Your task to perform on an android device: change the upload size in google photos Image 0: 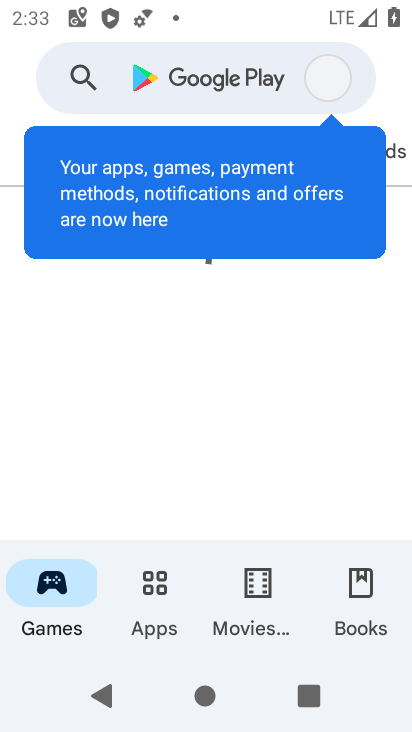
Step 0: press home button
Your task to perform on an android device: change the upload size in google photos Image 1: 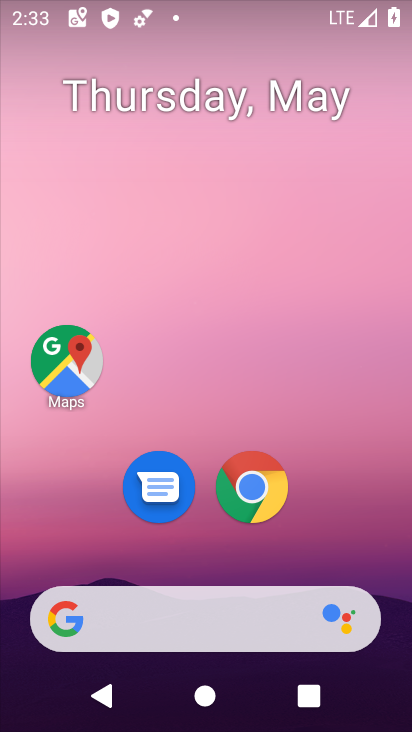
Step 1: drag from (269, 637) to (258, 134)
Your task to perform on an android device: change the upload size in google photos Image 2: 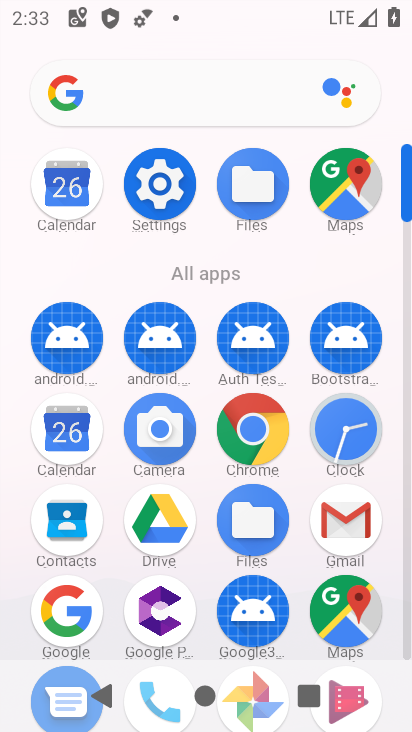
Step 2: drag from (258, 504) to (314, 132)
Your task to perform on an android device: change the upload size in google photos Image 3: 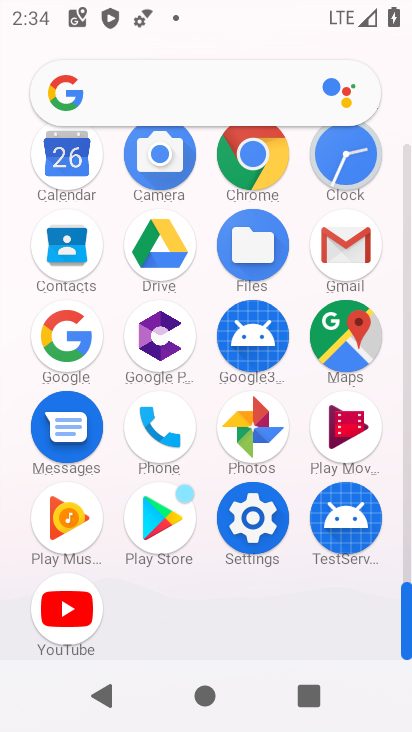
Step 3: drag from (258, 488) to (338, 84)
Your task to perform on an android device: change the upload size in google photos Image 4: 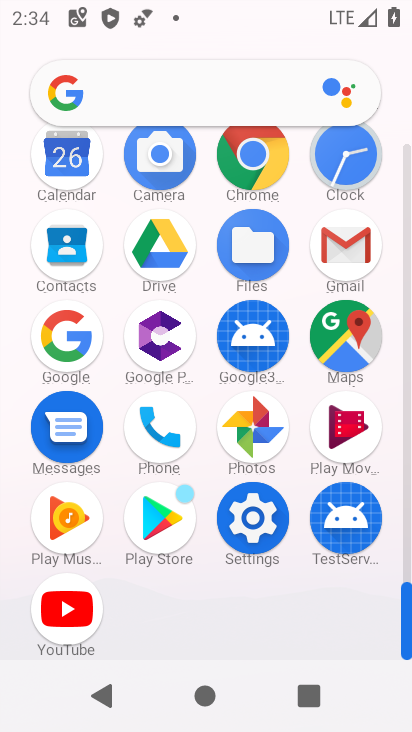
Step 4: click (261, 429)
Your task to perform on an android device: change the upload size in google photos Image 5: 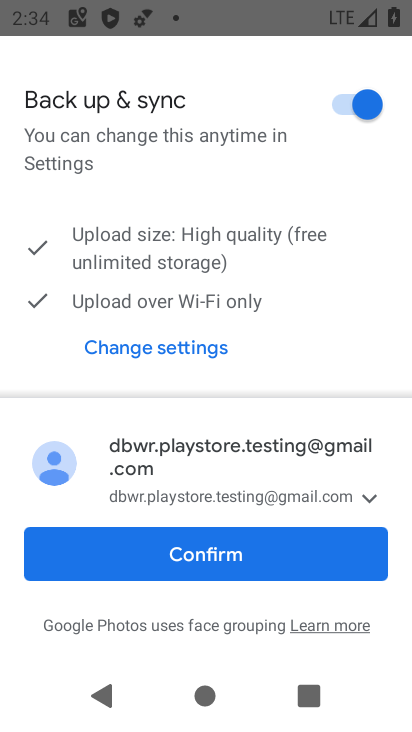
Step 5: click (270, 556)
Your task to perform on an android device: change the upload size in google photos Image 6: 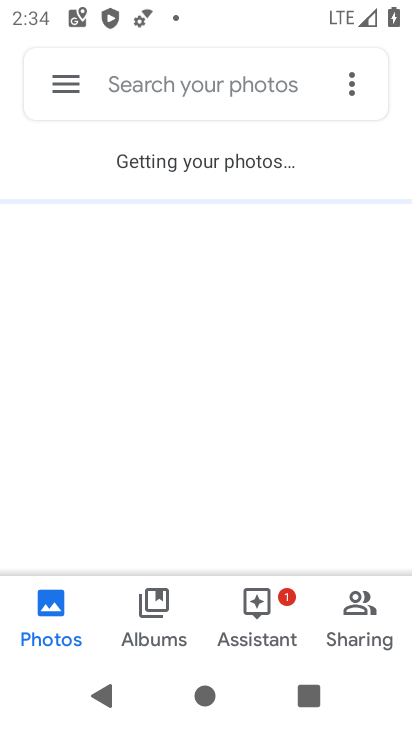
Step 6: click (66, 95)
Your task to perform on an android device: change the upload size in google photos Image 7: 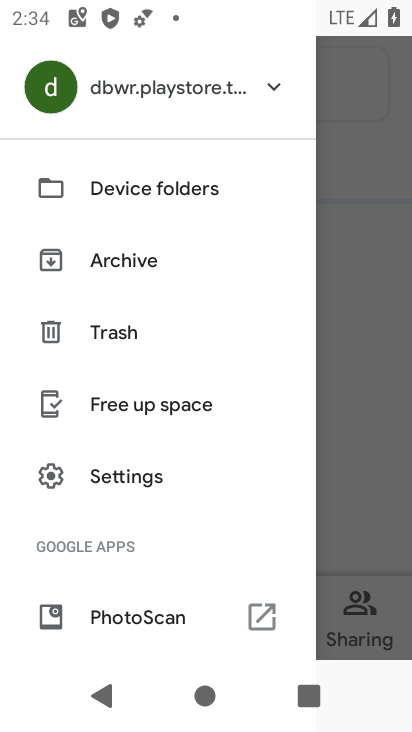
Step 7: drag from (119, 490) to (187, 93)
Your task to perform on an android device: change the upload size in google photos Image 8: 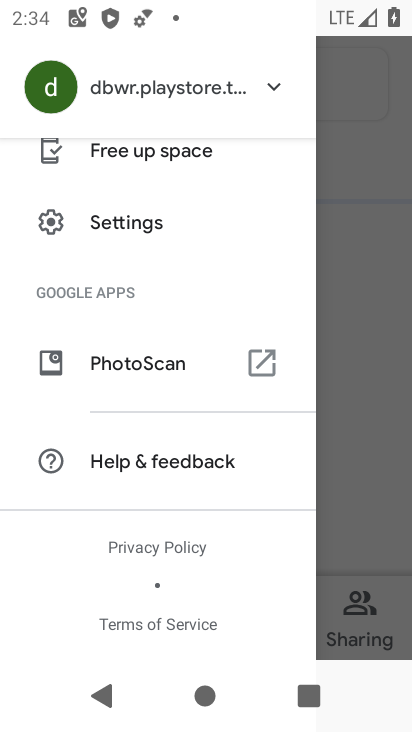
Step 8: click (148, 224)
Your task to perform on an android device: change the upload size in google photos Image 9: 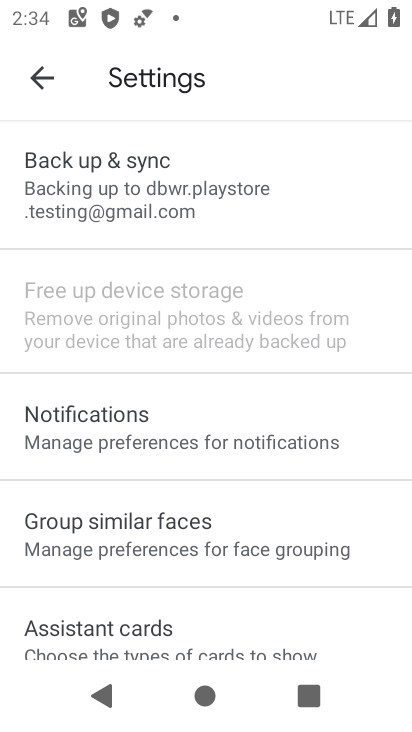
Step 9: click (163, 198)
Your task to perform on an android device: change the upload size in google photos Image 10: 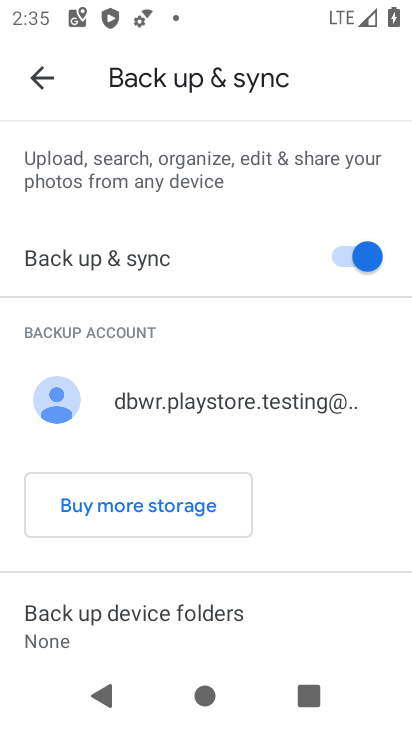
Step 10: drag from (238, 442) to (294, 70)
Your task to perform on an android device: change the upload size in google photos Image 11: 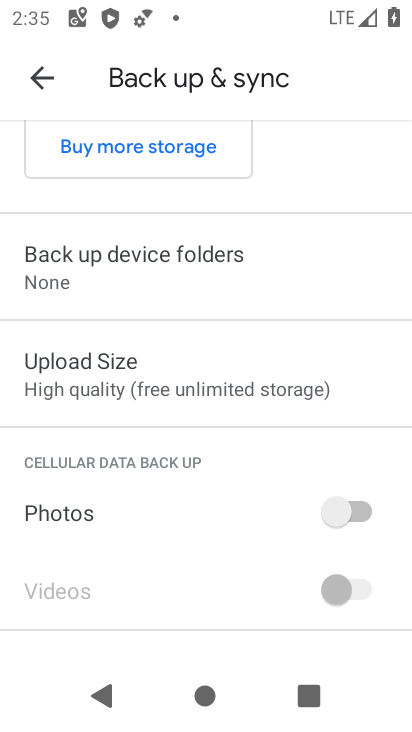
Step 11: click (192, 387)
Your task to perform on an android device: change the upload size in google photos Image 12: 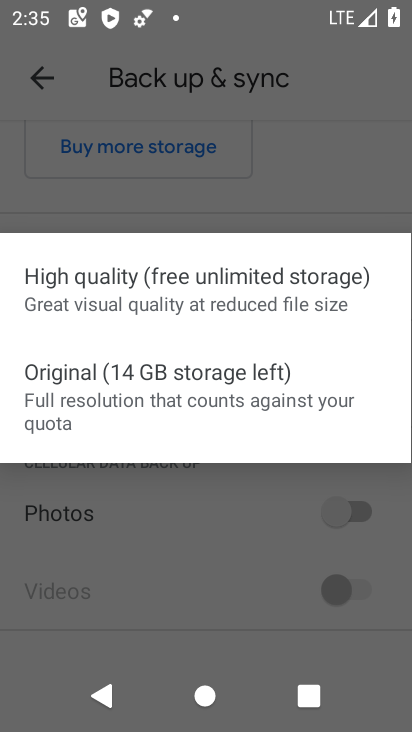
Step 12: click (214, 279)
Your task to perform on an android device: change the upload size in google photos Image 13: 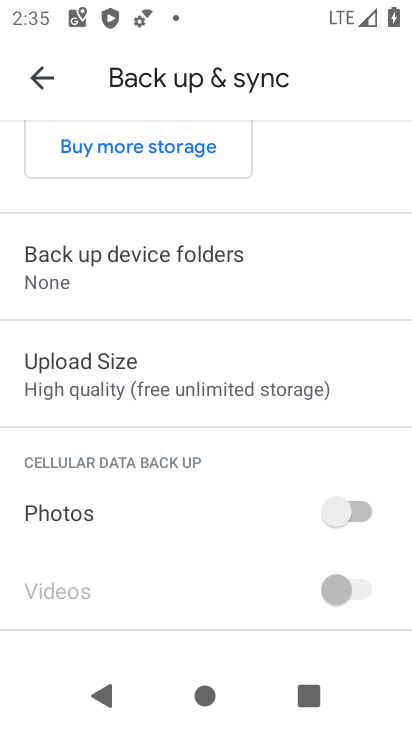
Step 13: task complete